Your task to perform on an android device: turn on priority inbox in the gmail app Image 0: 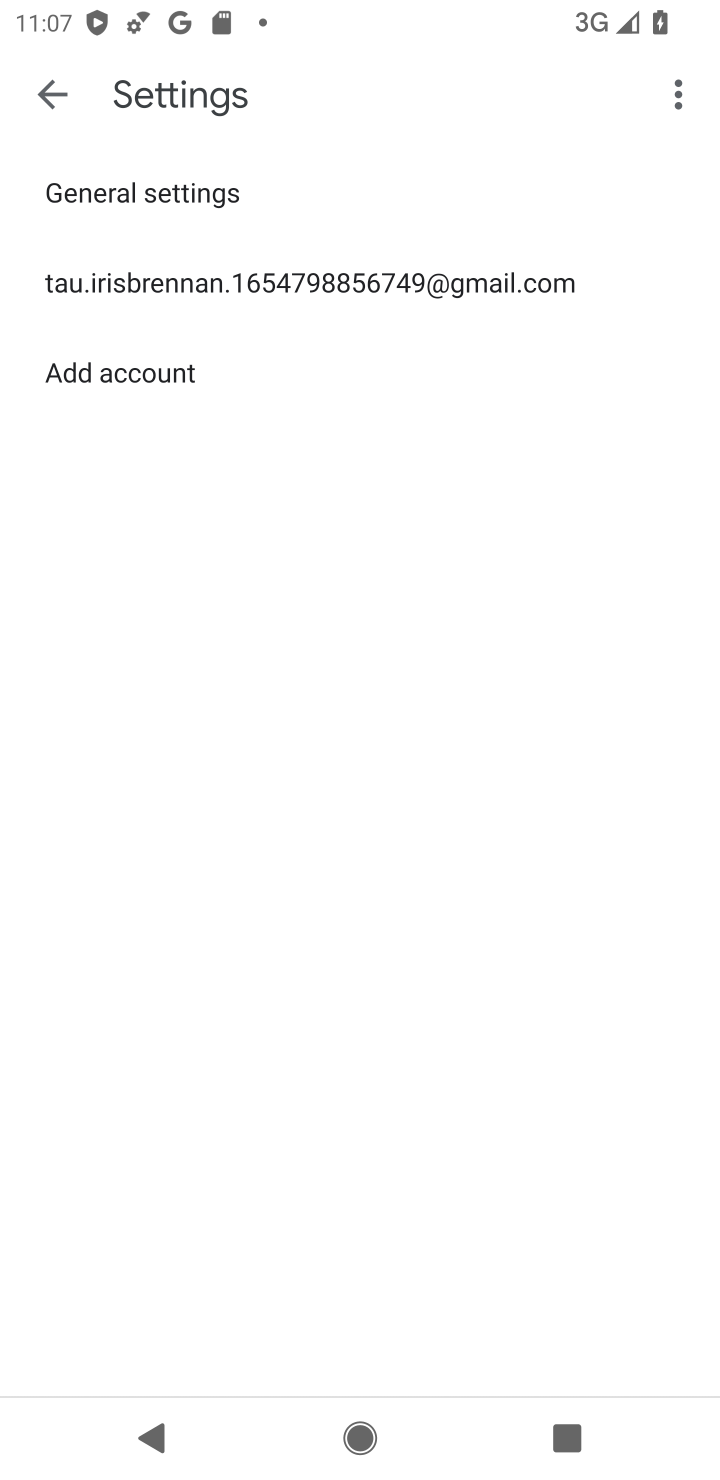
Step 0: press home button
Your task to perform on an android device: turn on priority inbox in the gmail app Image 1: 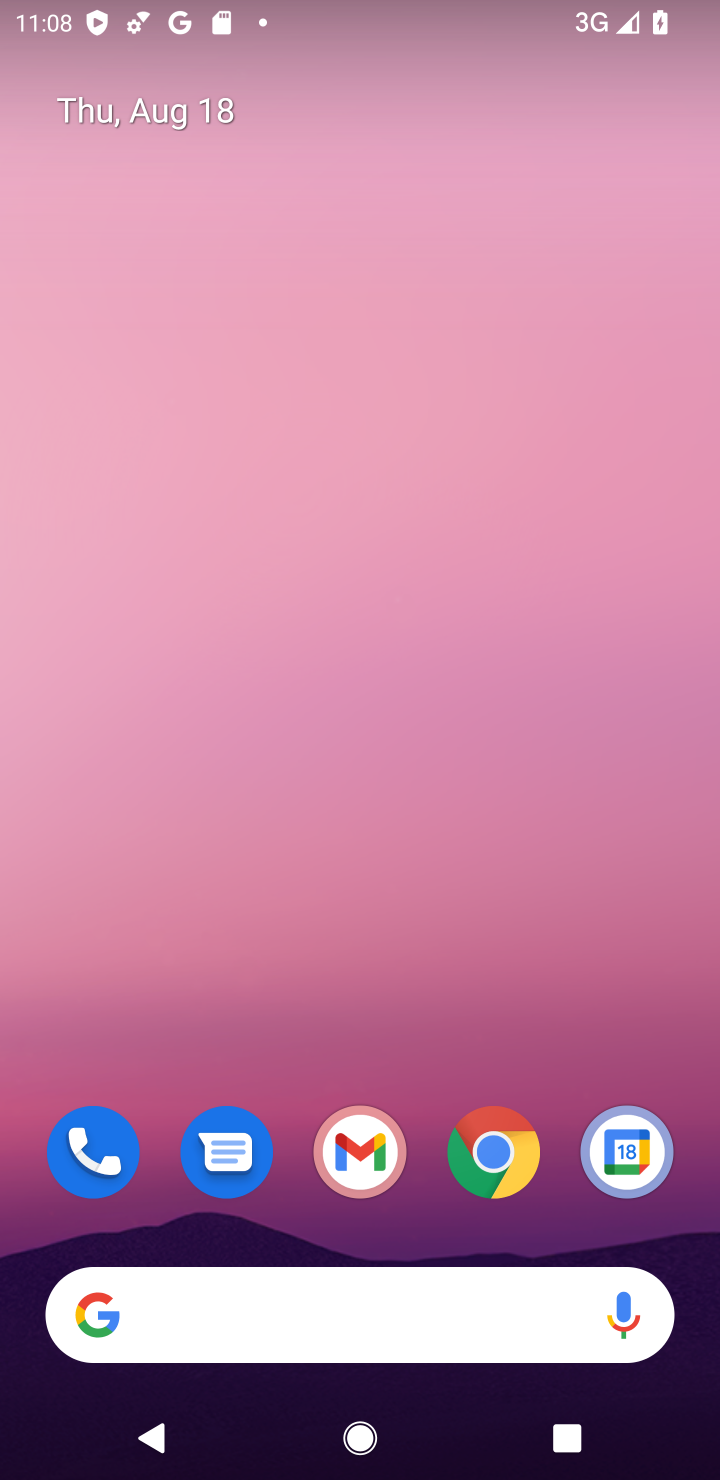
Step 1: click (354, 1143)
Your task to perform on an android device: turn on priority inbox in the gmail app Image 2: 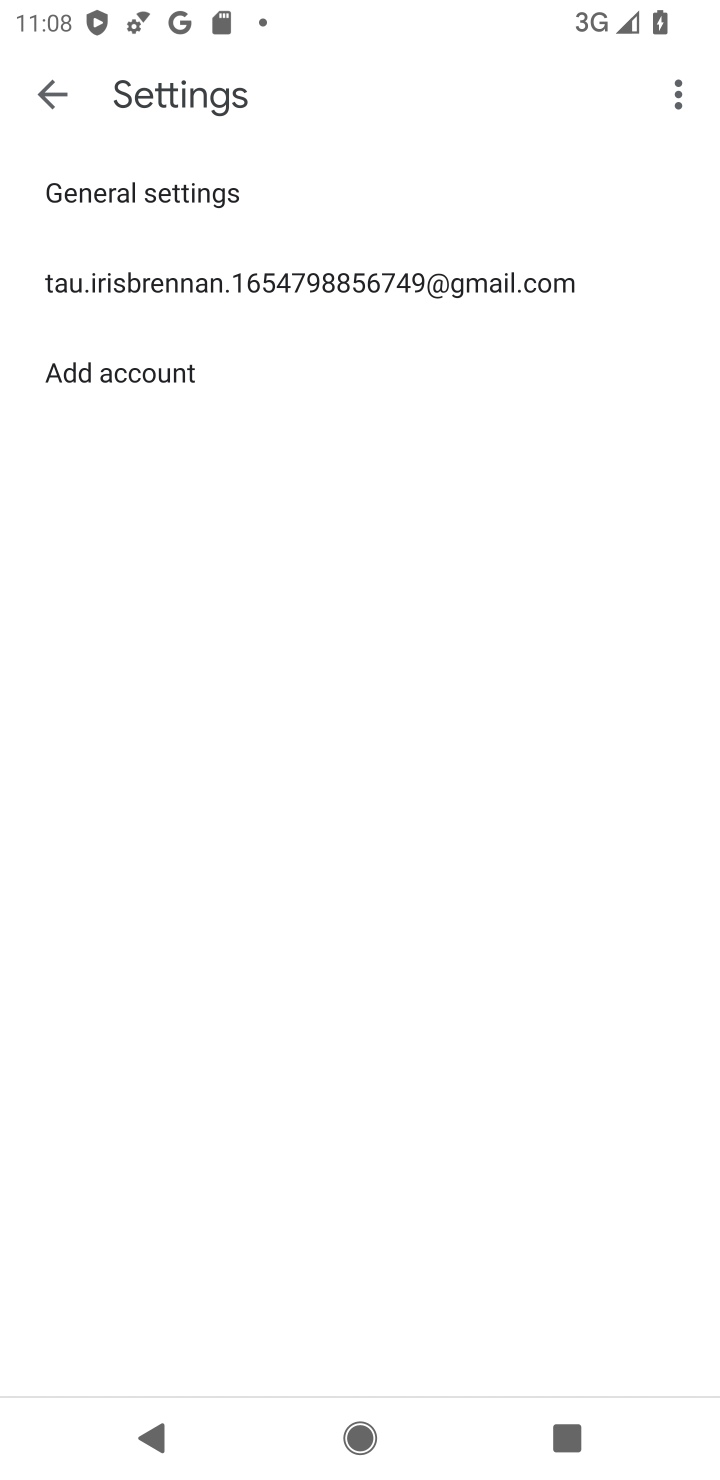
Step 2: click (483, 282)
Your task to perform on an android device: turn on priority inbox in the gmail app Image 3: 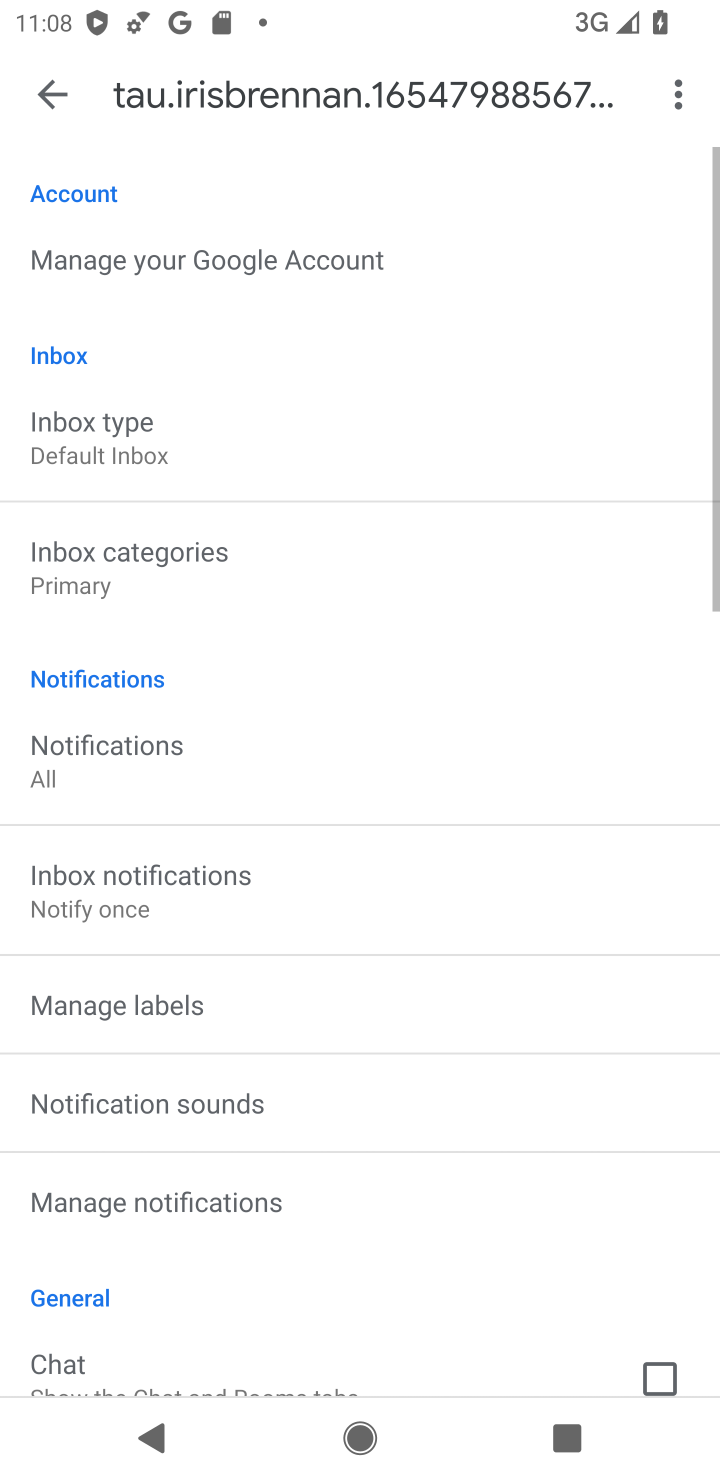
Step 3: click (152, 410)
Your task to perform on an android device: turn on priority inbox in the gmail app Image 4: 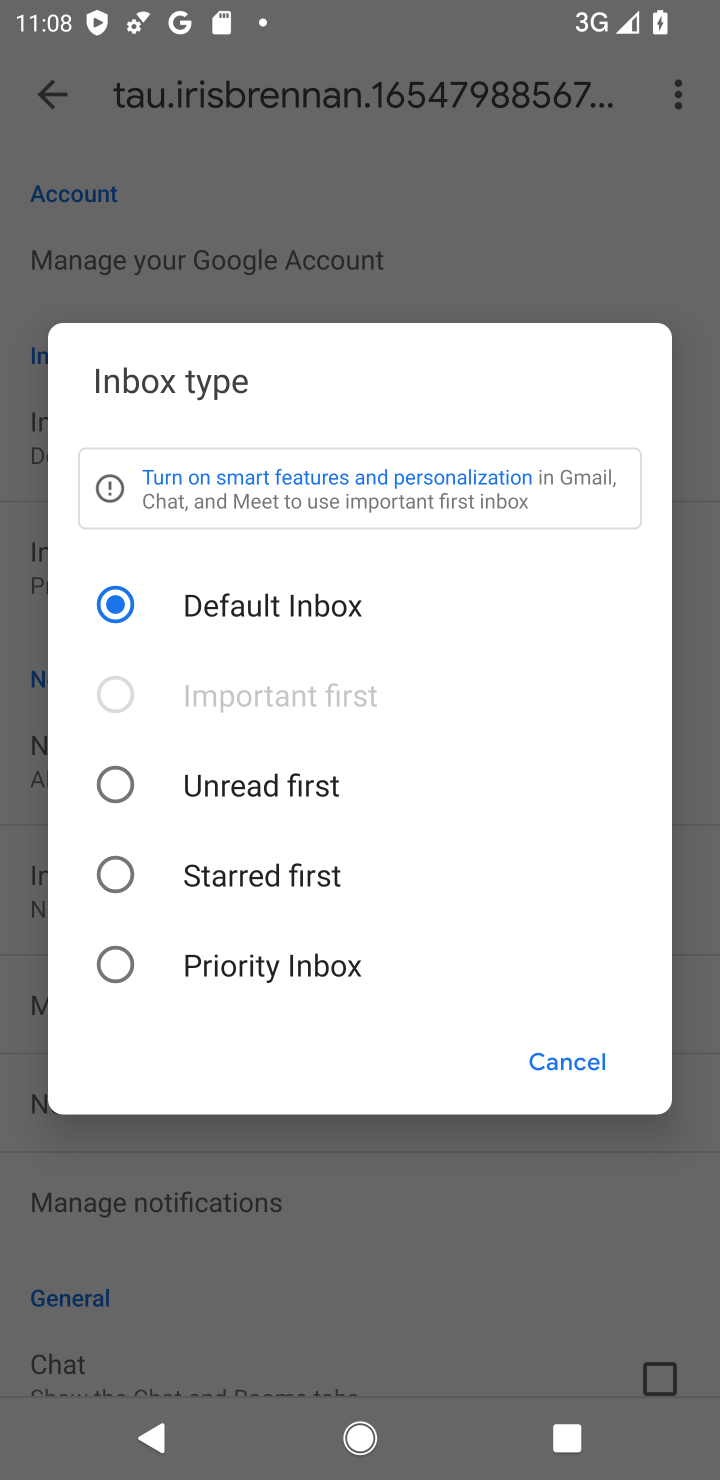
Step 4: click (124, 957)
Your task to perform on an android device: turn on priority inbox in the gmail app Image 5: 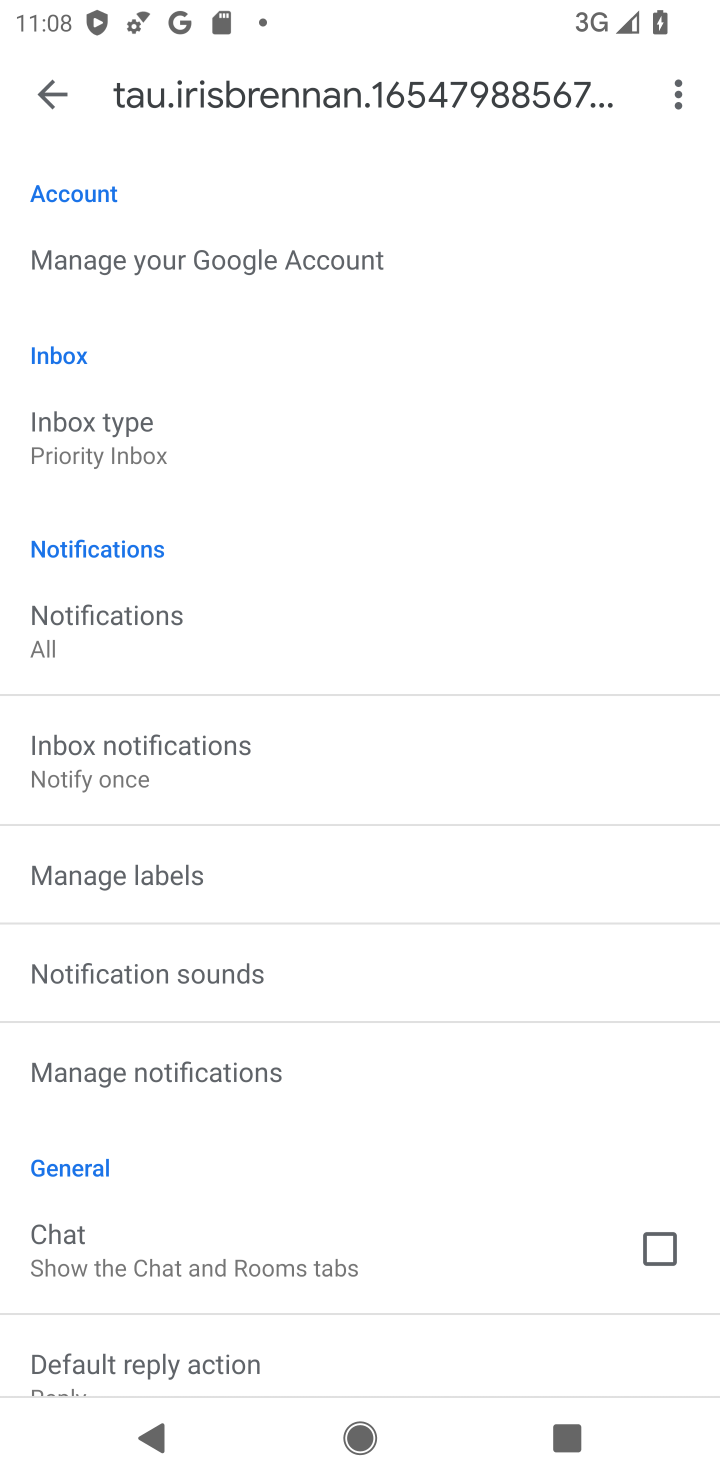
Step 5: task complete